Your task to perform on an android device: check battery use Image 0: 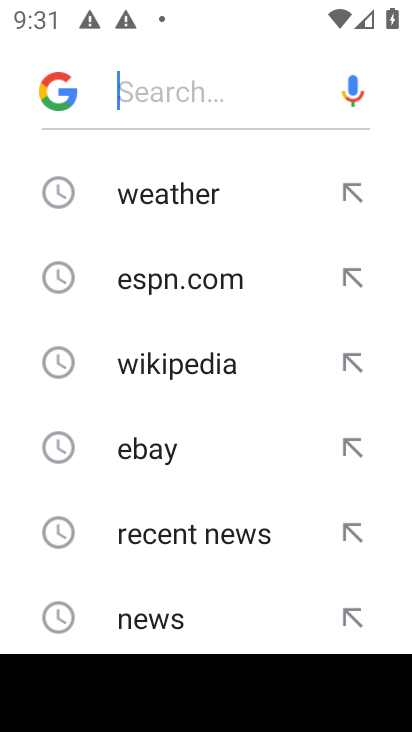
Step 0: press home button
Your task to perform on an android device: check battery use Image 1: 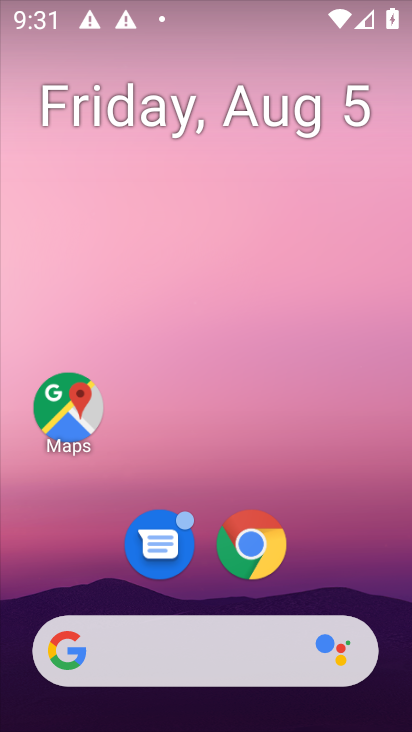
Step 1: drag from (257, 445) to (191, 86)
Your task to perform on an android device: check battery use Image 2: 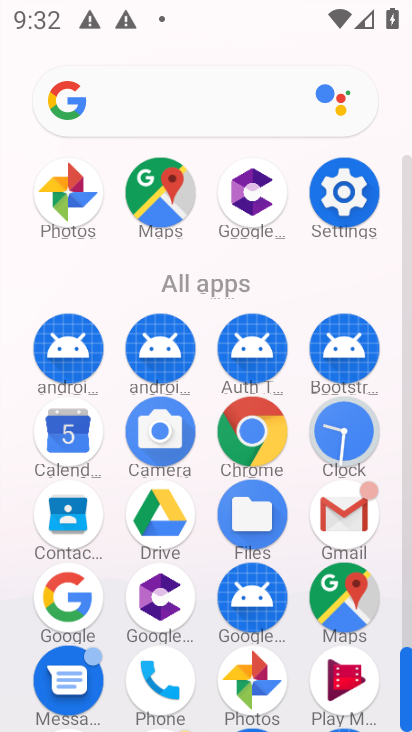
Step 2: click (352, 189)
Your task to perform on an android device: check battery use Image 3: 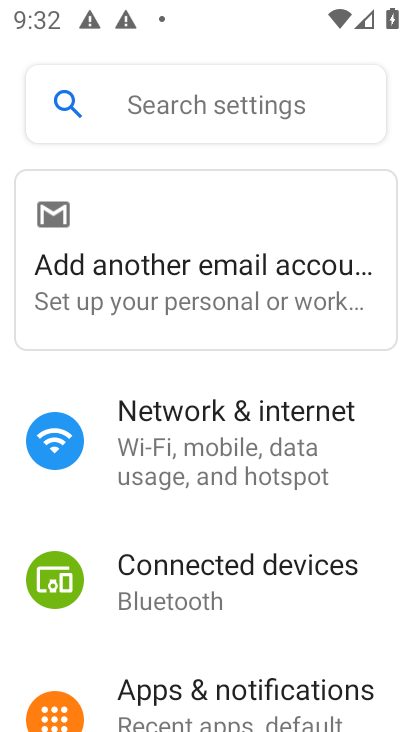
Step 3: drag from (177, 324) to (183, 248)
Your task to perform on an android device: check battery use Image 4: 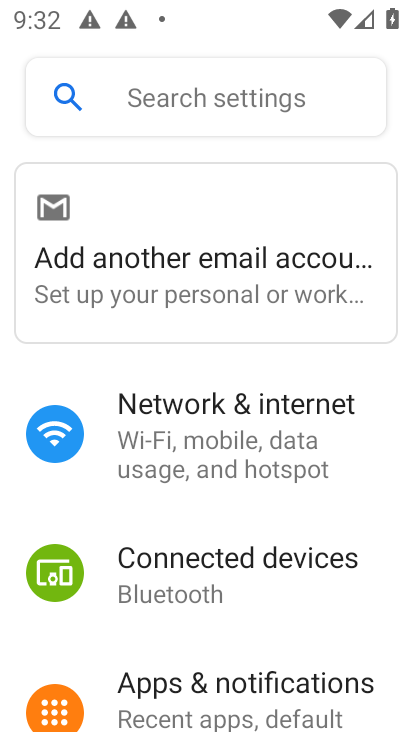
Step 4: drag from (248, 566) to (255, 270)
Your task to perform on an android device: check battery use Image 5: 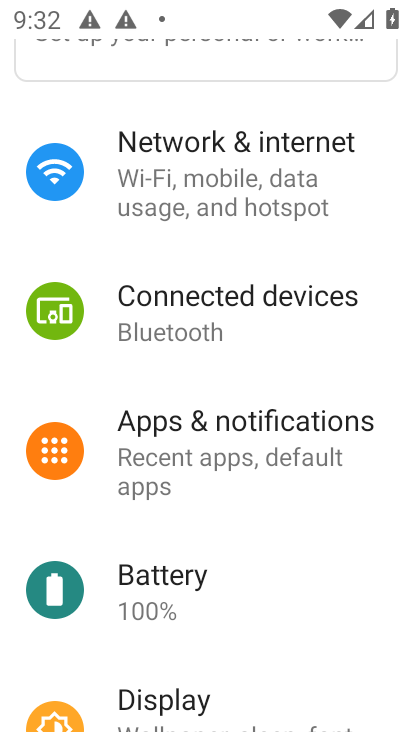
Step 5: click (211, 575)
Your task to perform on an android device: check battery use Image 6: 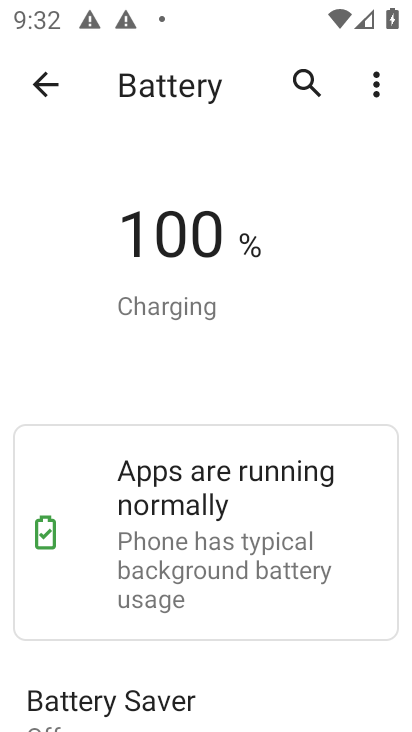
Step 6: task complete